Your task to perform on an android device: turn on the 12-hour format for clock Image 0: 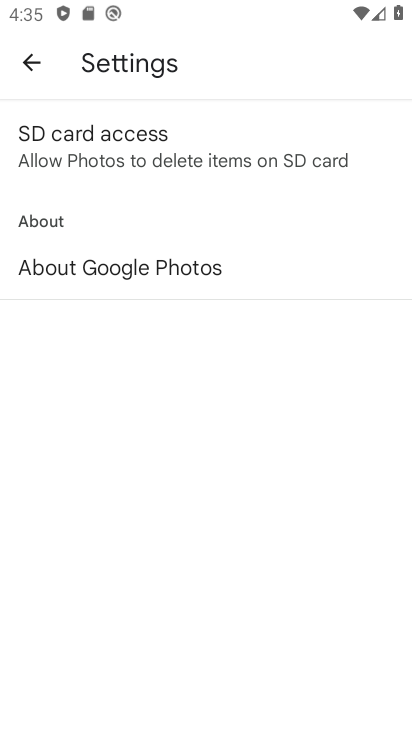
Step 0: press home button
Your task to perform on an android device: turn on the 12-hour format for clock Image 1: 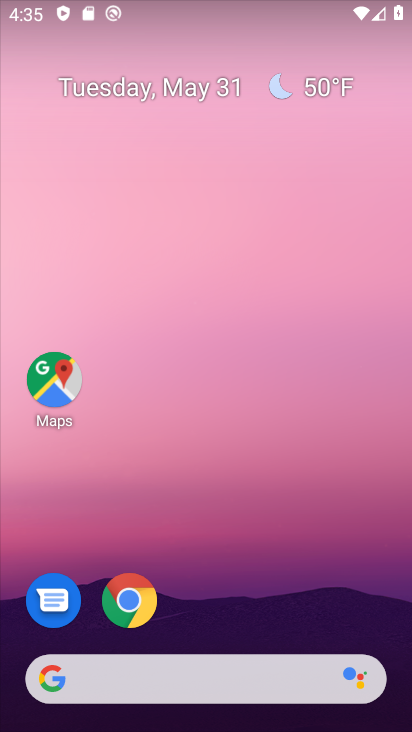
Step 1: drag from (221, 225) to (238, 90)
Your task to perform on an android device: turn on the 12-hour format for clock Image 2: 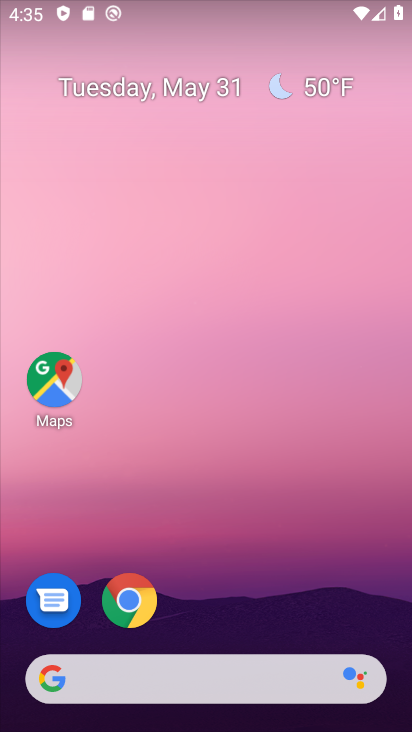
Step 2: drag from (288, 535) to (163, 5)
Your task to perform on an android device: turn on the 12-hour format for clock Image 3: 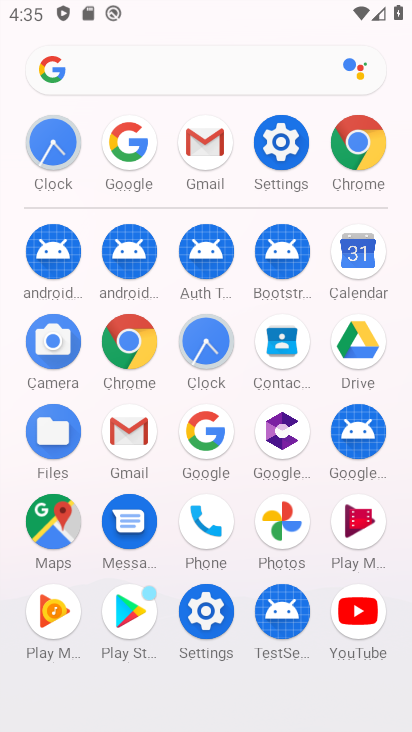
Step 3: click (54, 143)
Your task to perform on an android device: turn on the 12-hour format for clock Image 4: 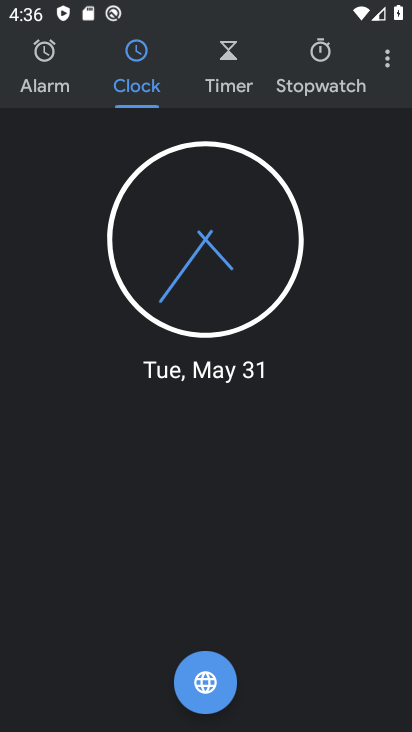
Step 4: click (389, 57)
Your task to perform on an android device: turn on the 12-hour format for clock Image 5: 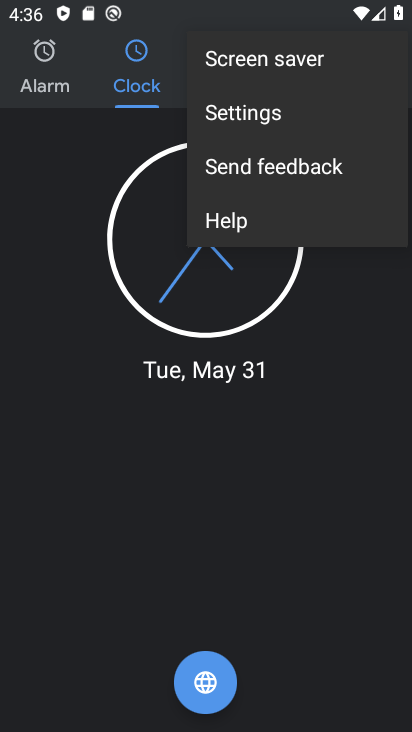
Step 5: click (255, 117)
Your task to perform on an android device: turn on the 12-hour format for clock Image 6: 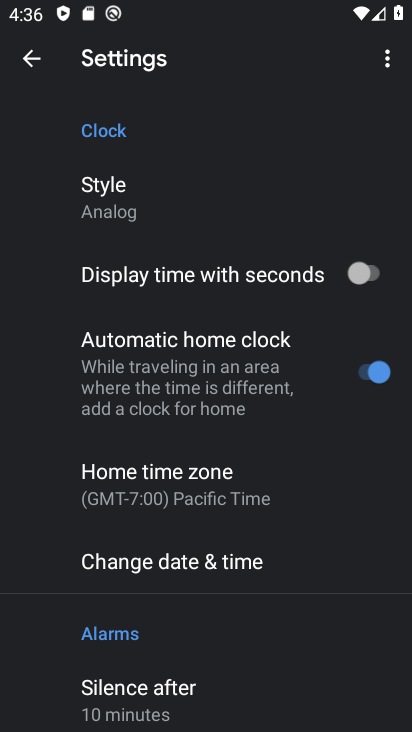
Step 6: click (209, 571)
Your task to perform on an android device: turn on the 12-hour format for clock Image 7: 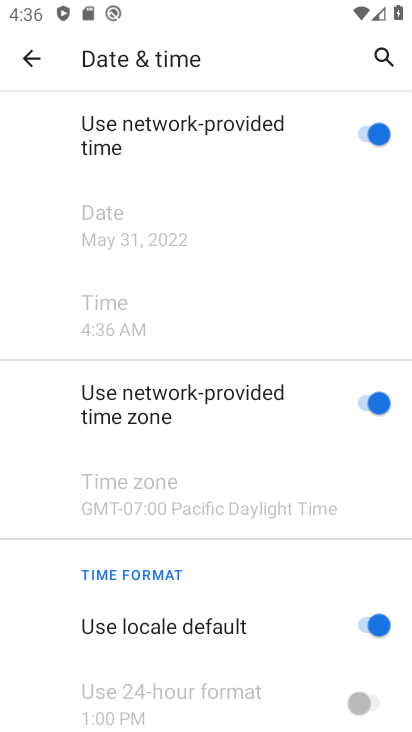
Step 7: task complete